Your task to perform on an android device: change the clock style Image 0: 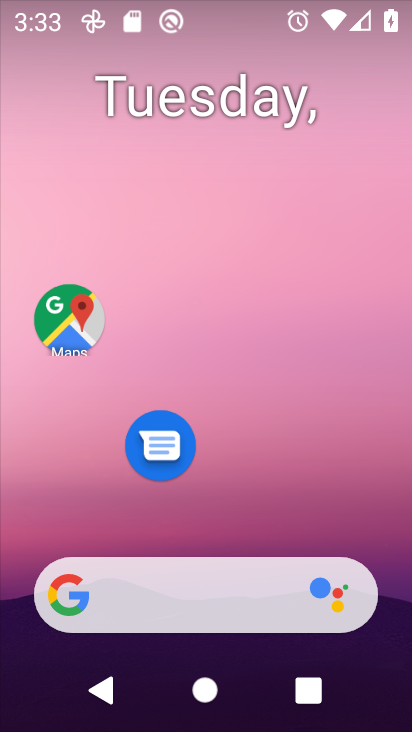
Step 0: drag from (251, 461) to (186, 80)
Your task to perform on an android device: change the clock style Image 1: 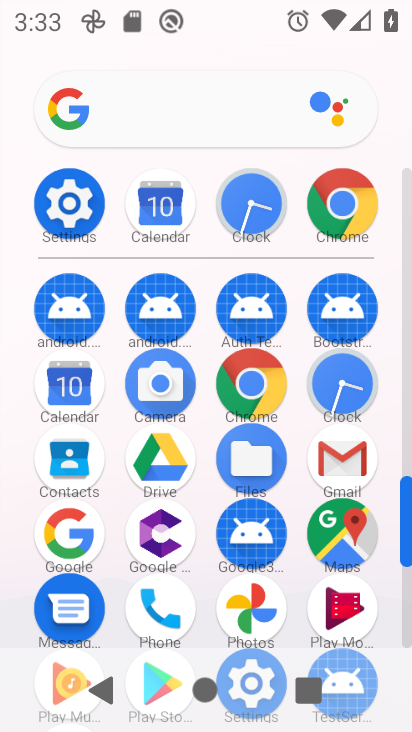
Step 1: click (276, 208)
Your task to perform on an android device: change the clock style Image 2: 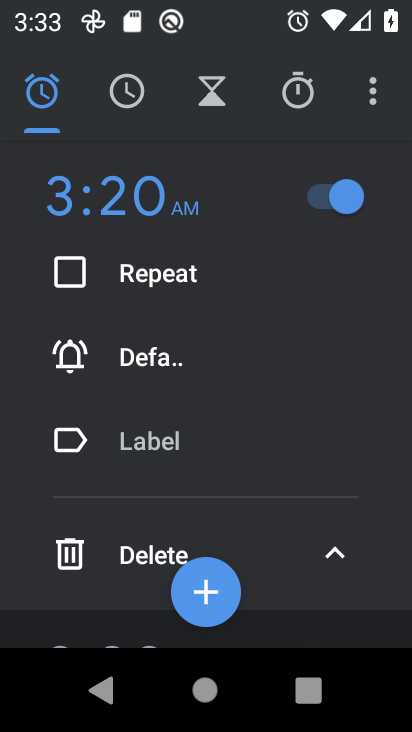
Step 2: click (381, 95)
Your task to perform on an android device: change the clock style Image 3: 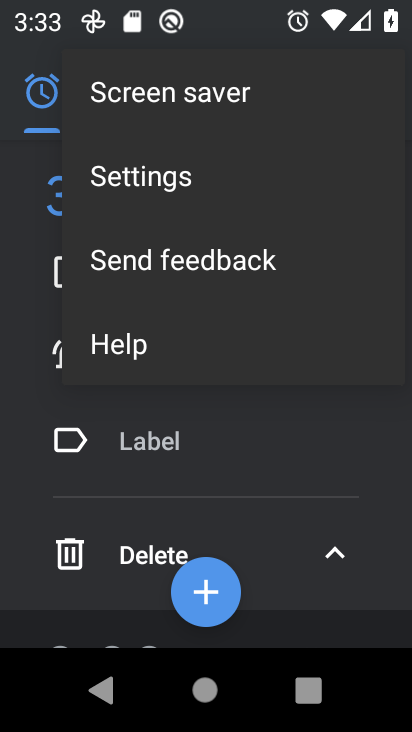
Step 3: click (160, 175)
Your task to perform on an android device: change the clock style Image 4: 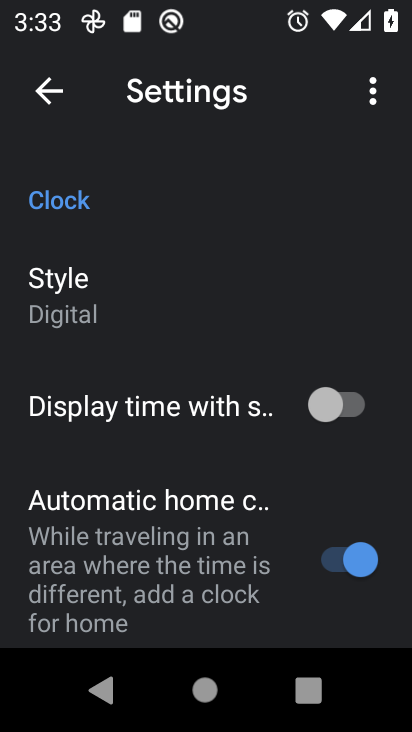
Step 4: click (73, 279)
Your task to perform on an android device: change the clock style Image 5: 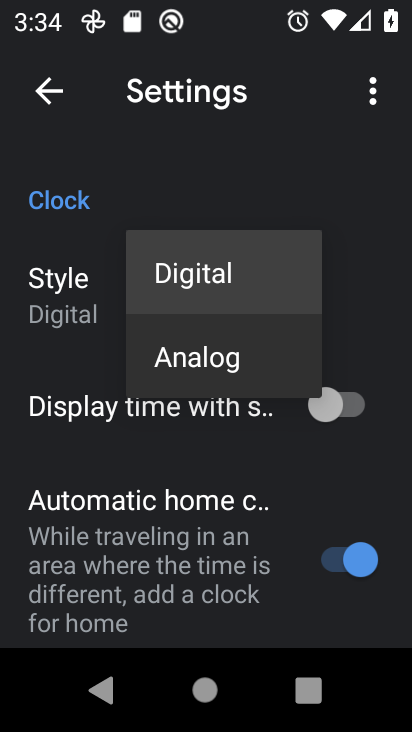
Step 5: click (176, 347)
Your task to perform on an android device: change the clock style Image 6: 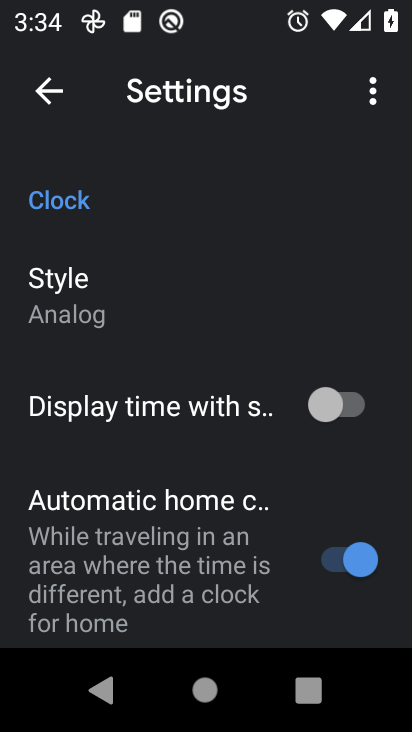
Step 6: task complete